Your task to perform on an android device: turn on the 12-hour format for clock Image 0: 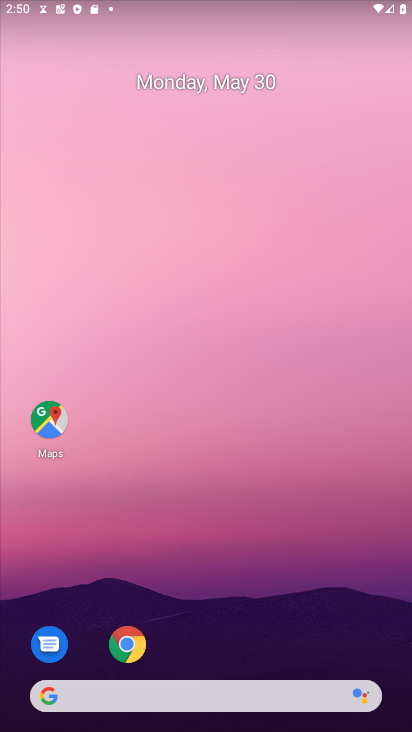
Step 0: press home button
Your task to perform on an android device: turn on the 12-hour format for clock Image 1: 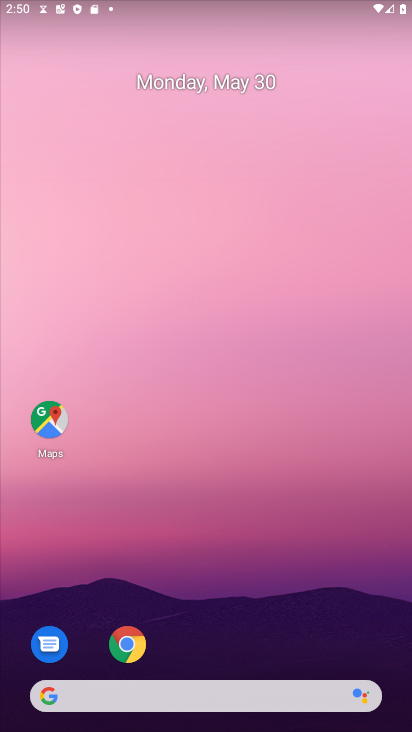
Step 1: drag from (302, 599) to (332, 147)
Your task to perform on an android device: turn on the 12-hour format for clock Image 2: 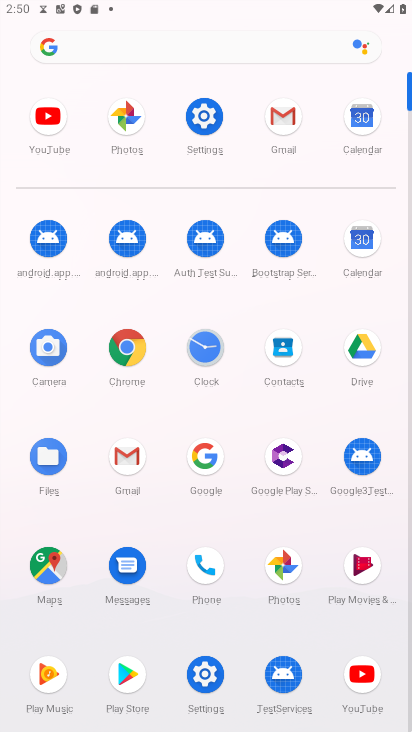
Step 2: click (199, 355)
Your task to perform on an android device: turn on the 12-hour format for clock Image 3: 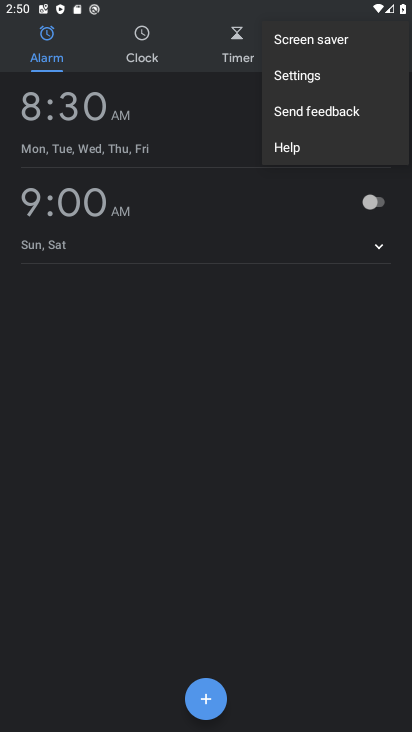
Step 3: click (313, 74)
Your task to perform on an android device: turn on the 12-hour format for clock Image 4: 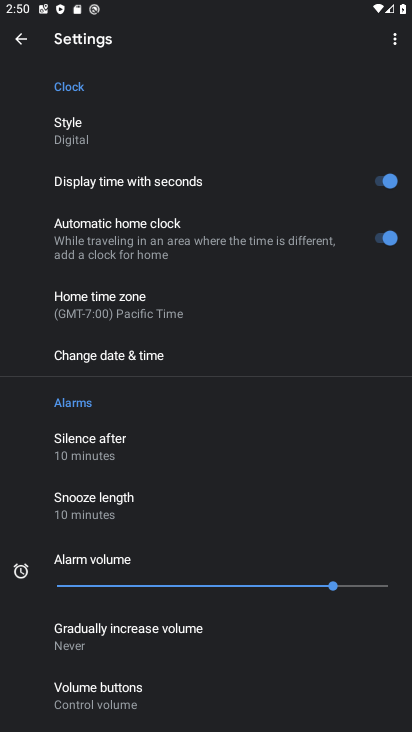
Step 4: click (143, 357)
Your task to perform on an android device: turn on the 12-hour format for clock Image 5: 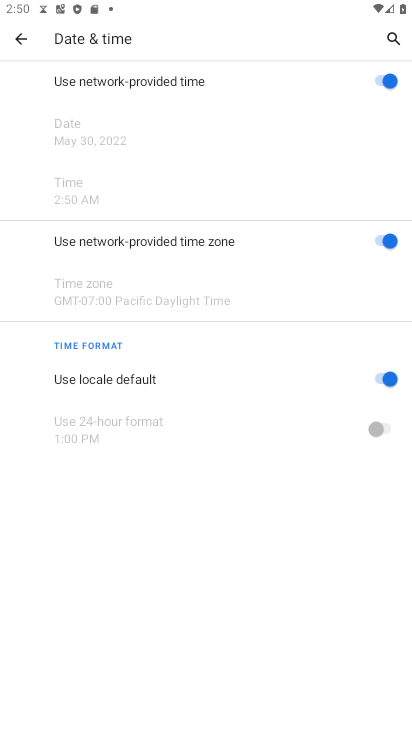
Step 5: task complete